Your task to perform on an android device: open app "Google Photos" (install if not already installed) Image 0: 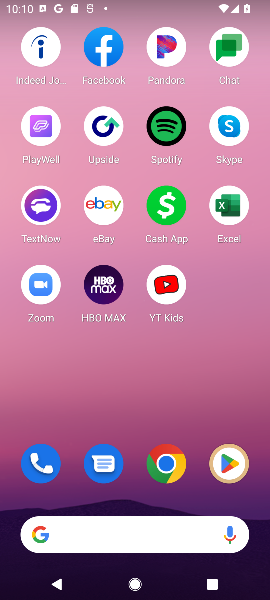
Step 0: click (231, 454)
Your task to perform on an android device: open app "Google Photos" (install if not already installed) Image 1: 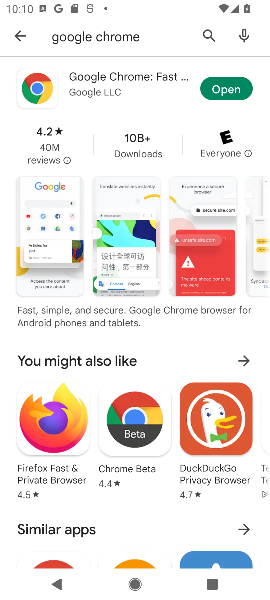
Step 1: click (198, 36)
Your task to perform on an android device: open app "Google Photos" (install if not already installed) Image 2: 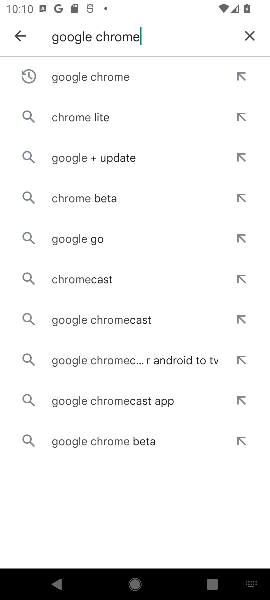
Step 2: click (250, 33)
Your task to perform on an android device: open app "Google Photos" (install if not already installed) Image 3: 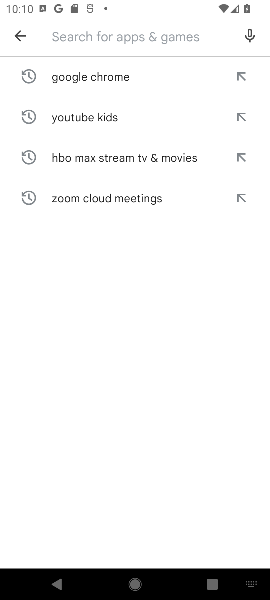
Step 3: type "Google Photos"
Your task to perform on an android device: open app "Google Photos" (install if not already installed) Image 4: 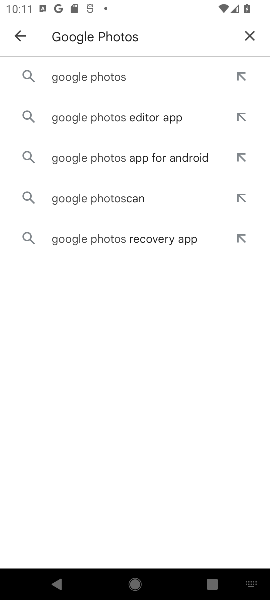
Step 4: click (90, 69)
Your task to perform on an android device: open app "Google Photos" (install if not already installed) Image 5: 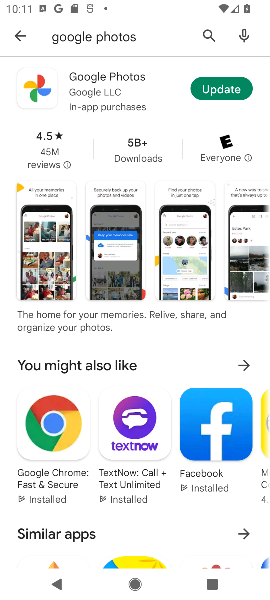
Step 5: click (220, 81)
Your task to perform on an android device: open app "Google Photos" (install if not already installed) Image 6: 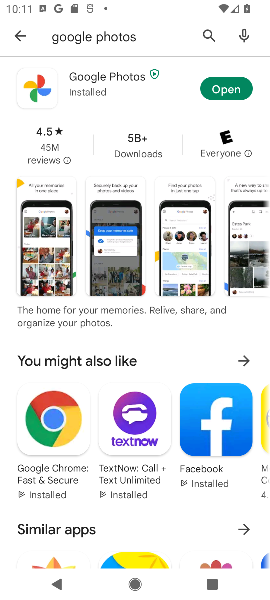
Step 6: click (222, 88)
Your task to perform on an android device: open app "Google Photos" (install if not already installed) Image 7: 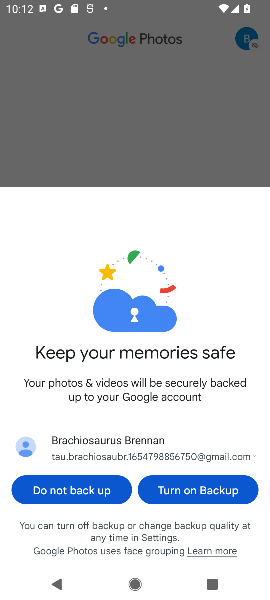
Step 7: click (162, 491)
Your task to perform on an android device: open app "Google Photos" (install if not already installed) Image 8: 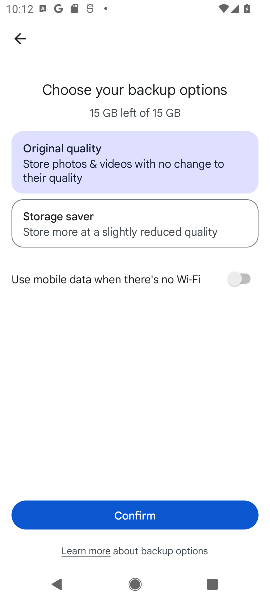
Step 8: click (150, 515)
Your task to perform on an android device: open app "Google Photos" (install if not already installed) Image 9: 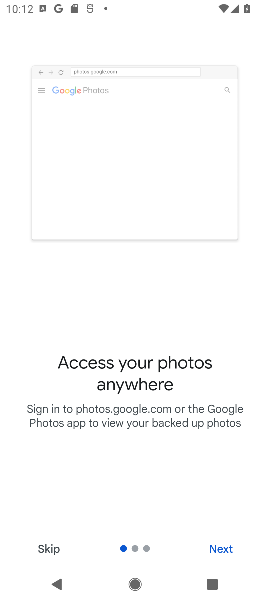
Step 9: click (216, 546)
Your task to perform on an android device: open app "Google Photos" (install if not already installed) Image 10: 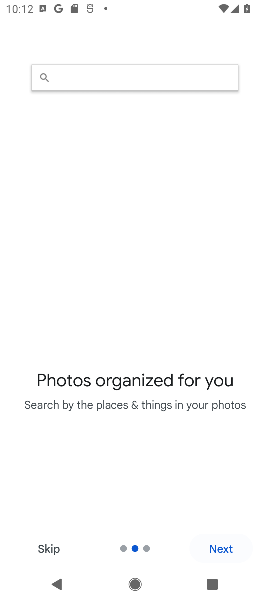
Step 10: click (216, 546)
Your task to perform on an android device: open app "Google Photos" (install if not already installed) Image 11: 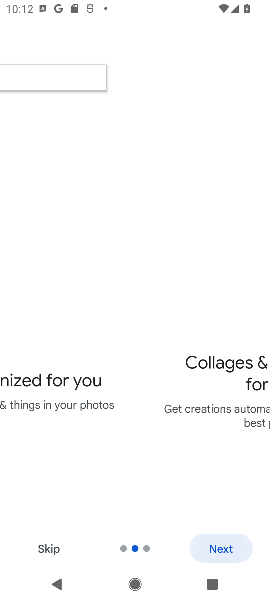
Step 11: click (216, 546)
Your task to perform on an android device: open app "Google Photos" (install if not already installed) Image 12: 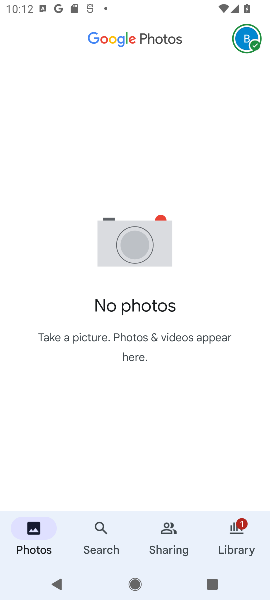
Step 12: task complete